Your task to perform on an android device: Turn on the flashlight Image 0: 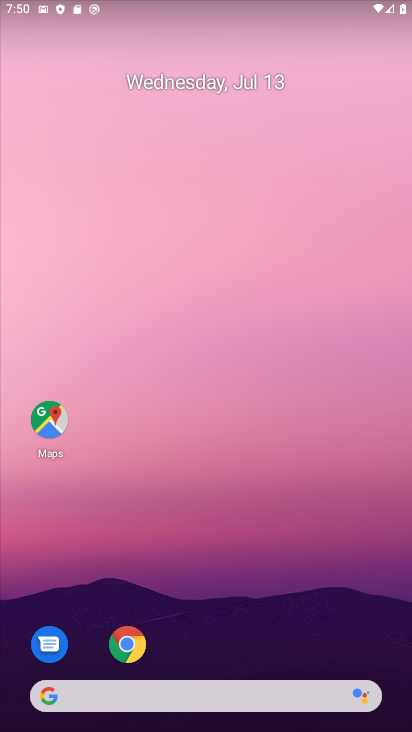
Step 0: drag from (38, 514) to (310, 6)
Your task to perform on an android device: Turn on the flashlight Image 1: 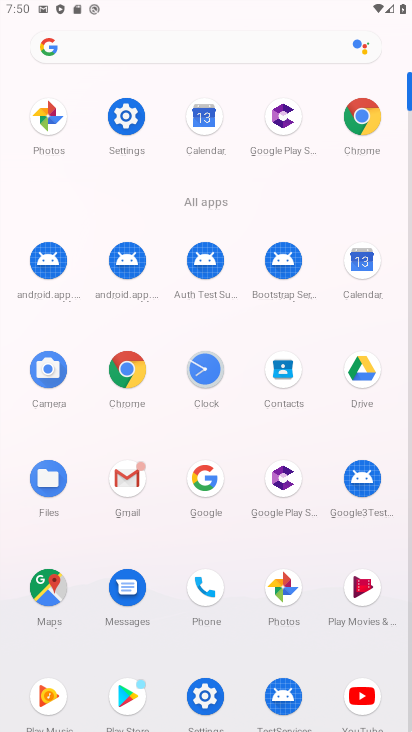
Step 1: click (121, 110)
Your task to perform on an android device: Turn on the flashlight Image 2: 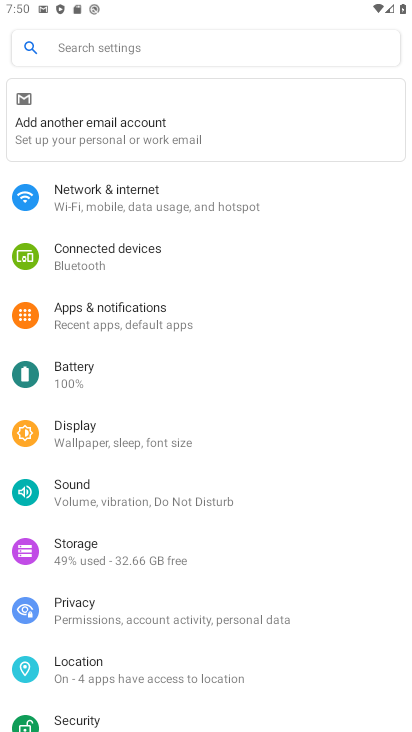
Step 2: task complete